Your task to perform on an android device: toggle notifications settings in the gmail app Image 0: 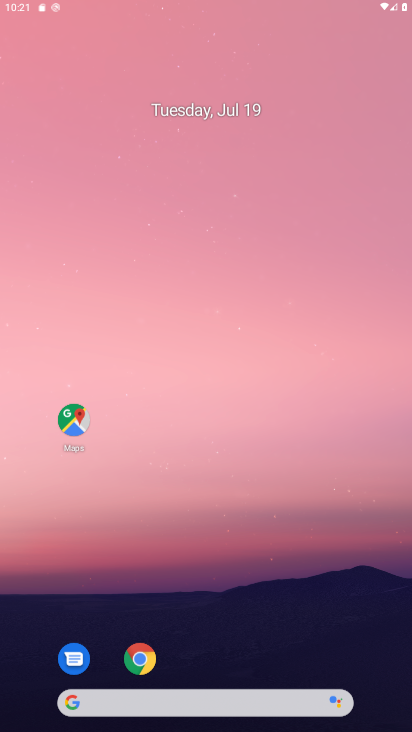
Step 0: click (197, 108)
Your task to perform on an android device: toggle notifications settings in the gmail app Image 1: 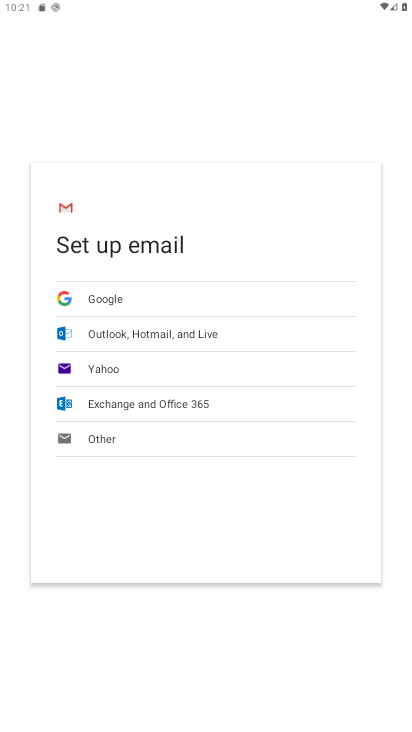
Step 1: press home button
Your task to perform on an android device: toggle notifications settings in the gmail app Image 2: 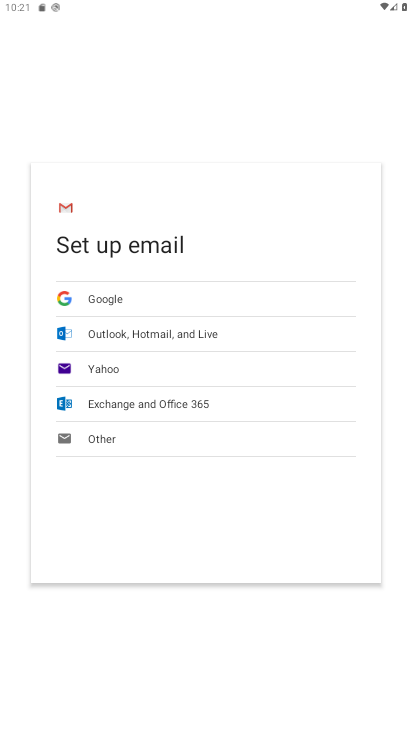
Step 2: press home button
Your task to perform on an android device: toggle notifications settings in the gmail app Image 3: 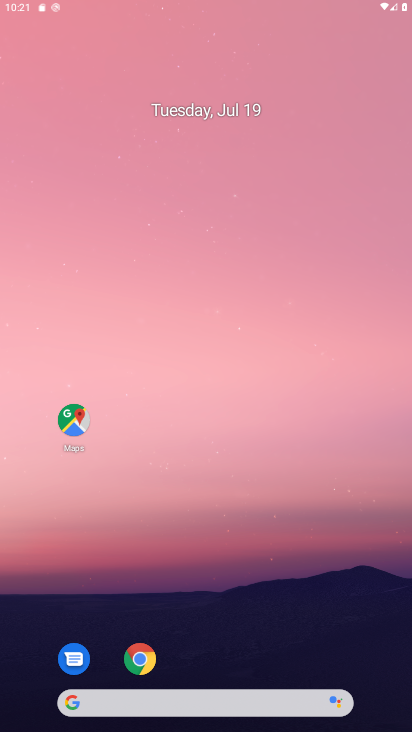
Step 3: press home button
Your task to perform on an android device: toggle notifications settings in the gmail app Image 4: 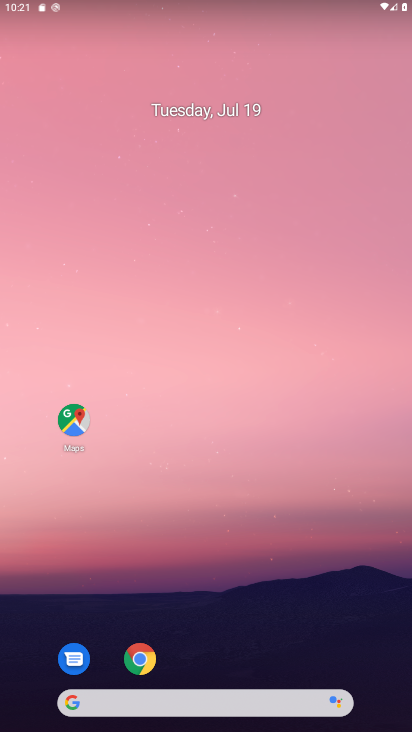
Step 4: drag from (227, 517) to (298, 25)
Your task to perform on an android device: toggle notifications settings in the gmail app Image 5: 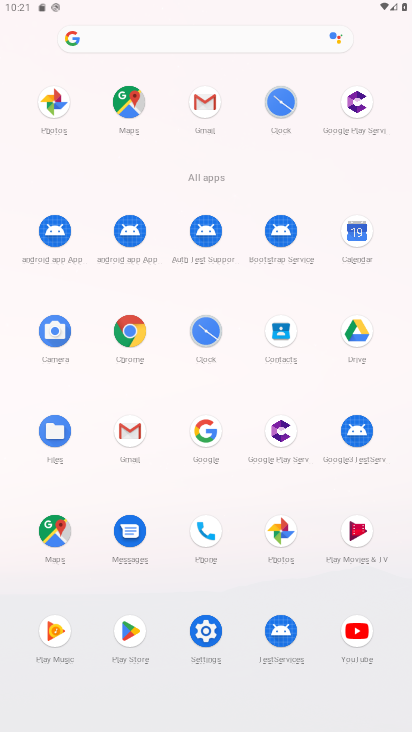
Step 5: click (131, 431)
Your task to perform on an android device: toggle notifications settings in the gmail app Image 6: 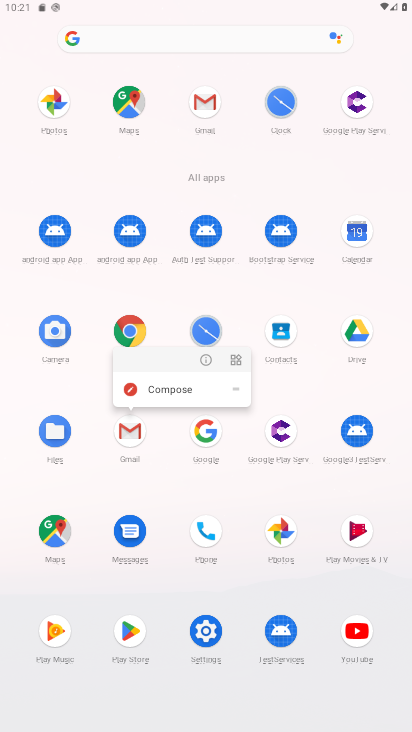
Step 6: click (199, 358)
Your task to perform on an android device: toggle notifications settings in the gmail app Image 7: 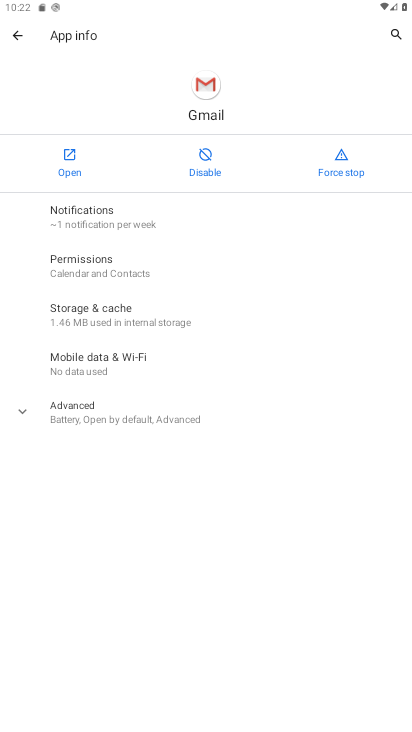
Step 7: click (75, 153)
Your task to perform on an android device: toggle notifications settings in the gmail app Image 8: 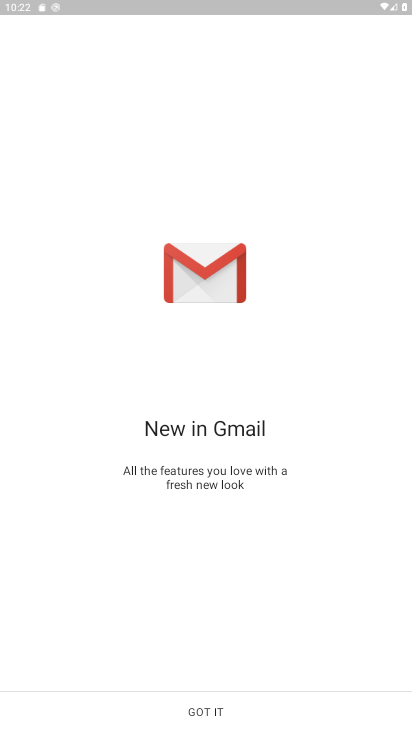
Step 8: click (191, 712)
Your task to perform on an android device: toggle notifications settings in the gmail app Image 9: 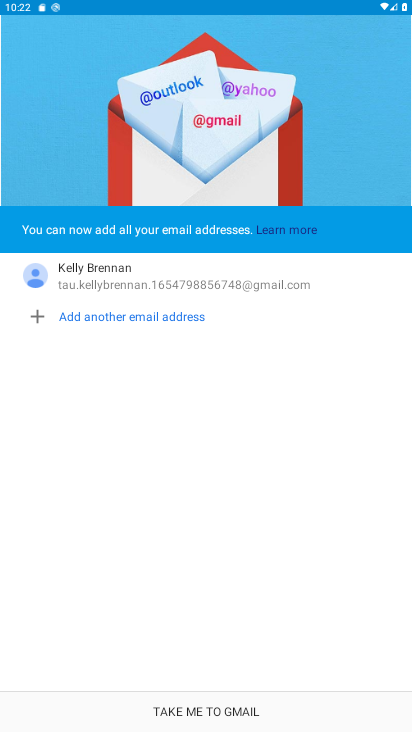
Step 9: click (194, 713)
Your task to perform on an android device: toggle notifications settings in the gmail app Image 10: 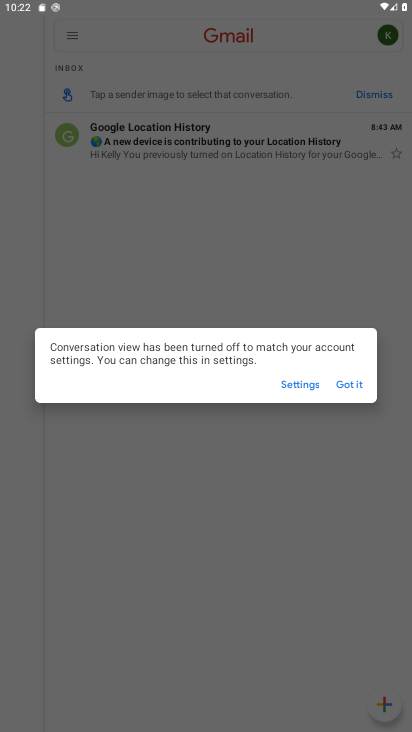
Step 10: click (341, 378)
Your task to perform on an android device: toggle notifications settings in the gmail app Image 11: 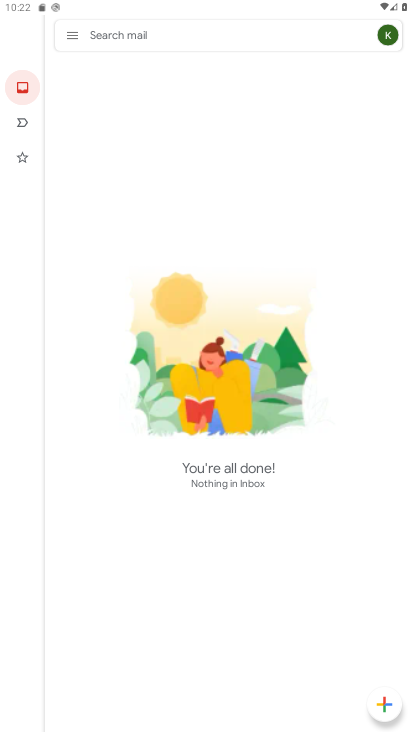
Step 11: drag from (189, 520) to (287, 227)
Your task to perform on an android device: toggle notifications settings in the gmail app Image 12: 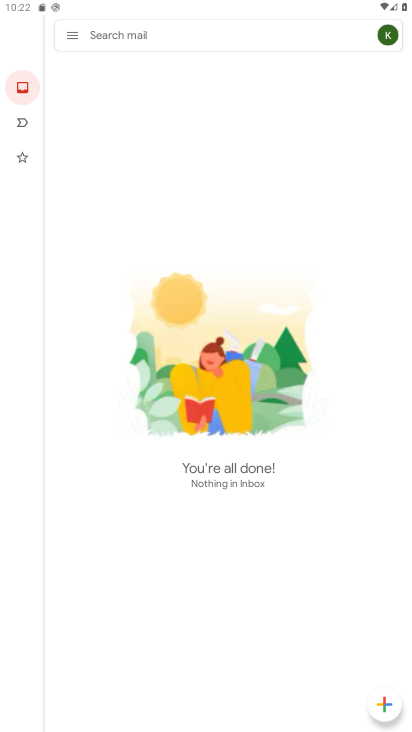
Step 12: click (59, 36)
Your task to perform on an android device: toggle notifications settings in the gmail app Image 13: 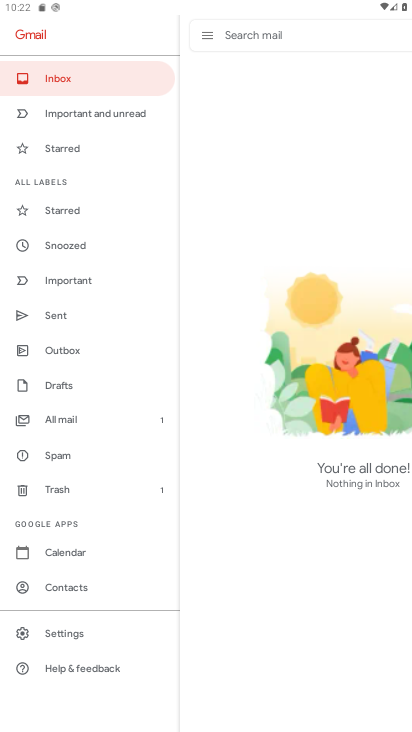
Step 13: click (65, 627)
Your task to perform on an android device: toggle notifications settings in the gmail app Image 14: 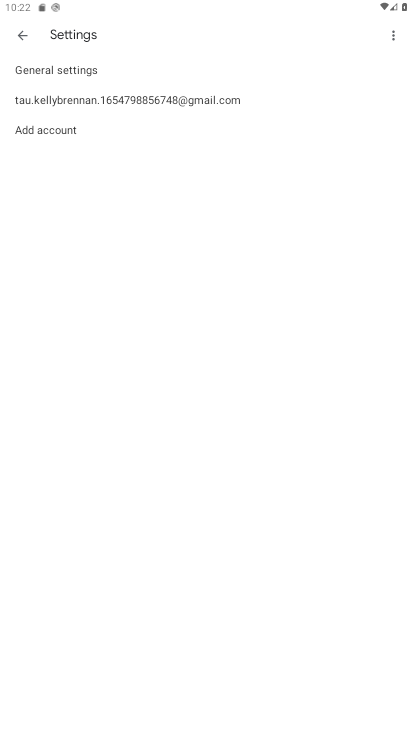
Step 14: click (151, 95)
Your task to perform on an android device: toggle notifications settings in the gmail app Image 15: 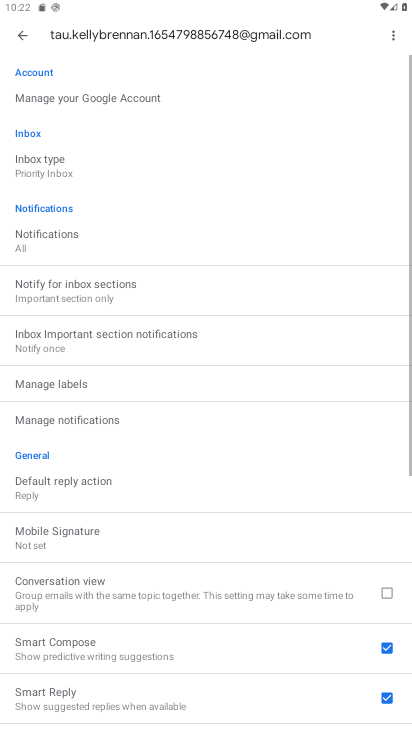
Step 15: drag from (253, 513) to (317, 131)
Your task to perform on an android device: toggle notifications settings in the gmail app Image 16: 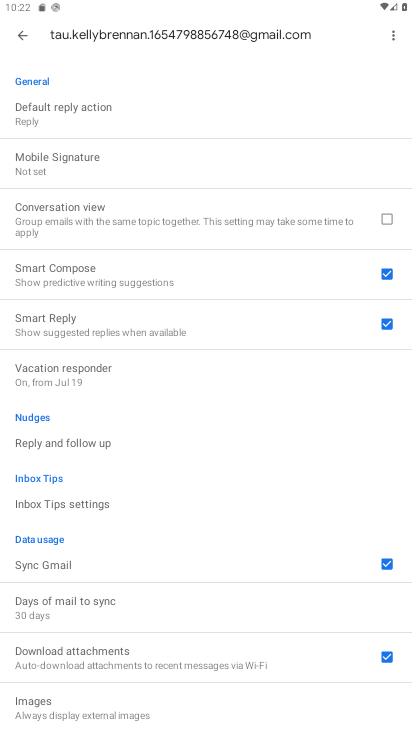
Step 16: click (114, 429)
Your task to perform on an android device: toggle notifications settings in the gmail app Image 17: 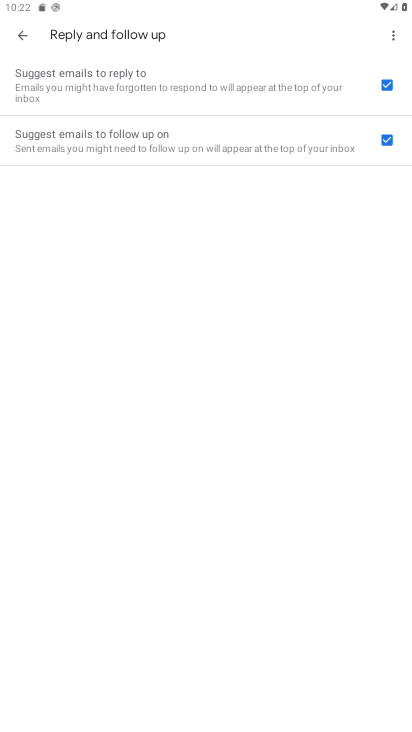
Step 17: drag from (162, 510) to (315, 161)
Your task to perform on an android device: toggle notifications settings in the gmail app Image 18: 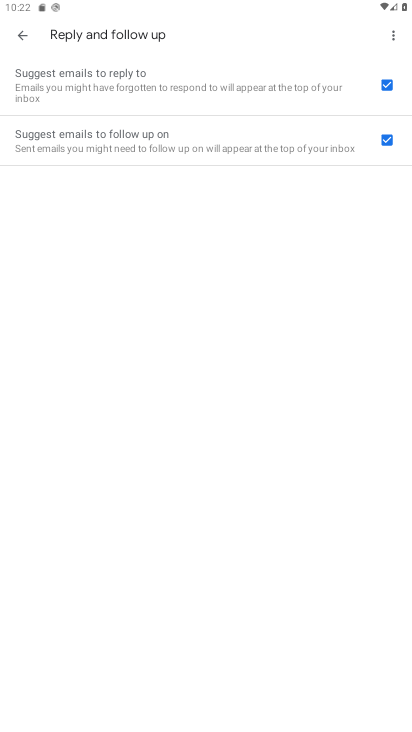
Step 18: click (18, 40)
Your task to perform on an android device: toggle notifications settings in the gmail app Image 19: 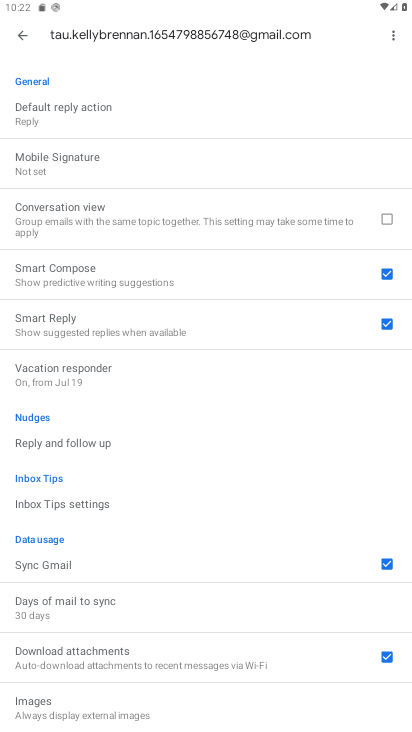
Step 19: drag from (97, 145) to (173, 642)
Your task to perform on an android device: toggle notifications settings in the gmail app Image 20: 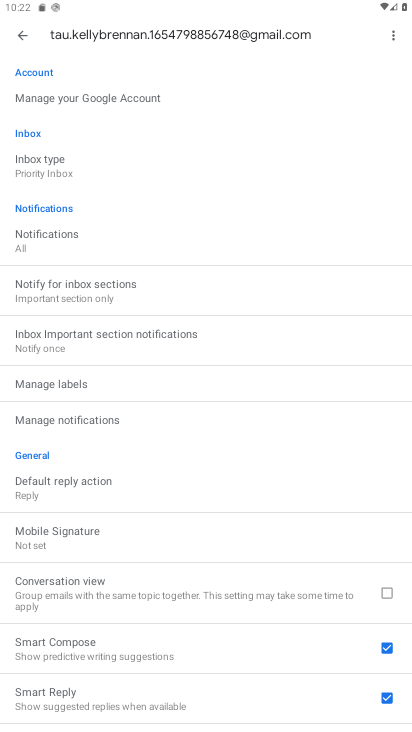
Step 20: click (98, 431)
Your task to perform on an android device: toggle notifications settings in the gmail app Image 21: 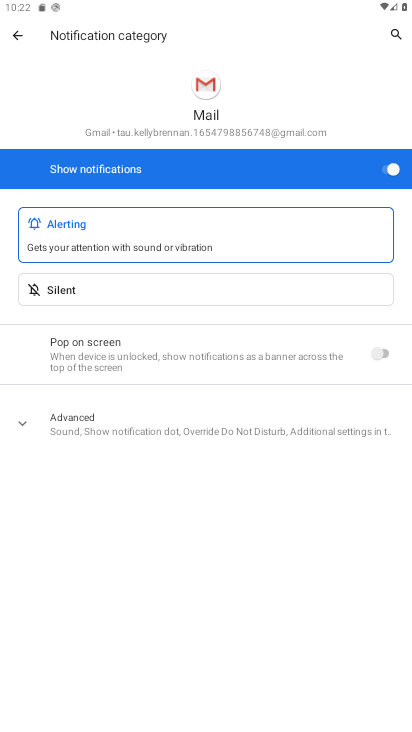
Step 21: click (389, 172)
Your task to perform on an android device: toggle notifications settings in the gmail app Image 22: 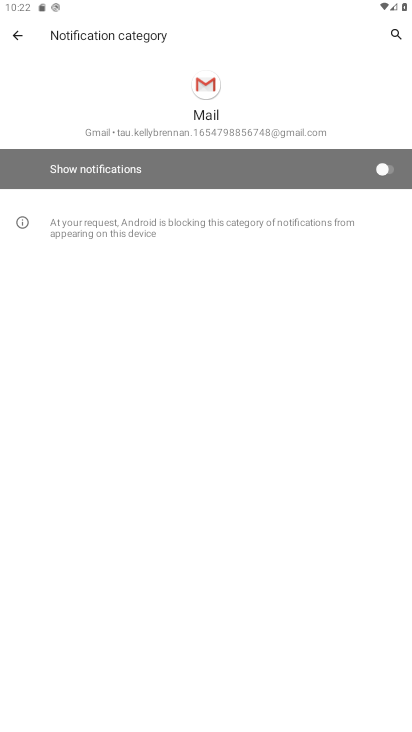
Step 22: task complete